Your task to perform on an android device: add a contact Image 0: 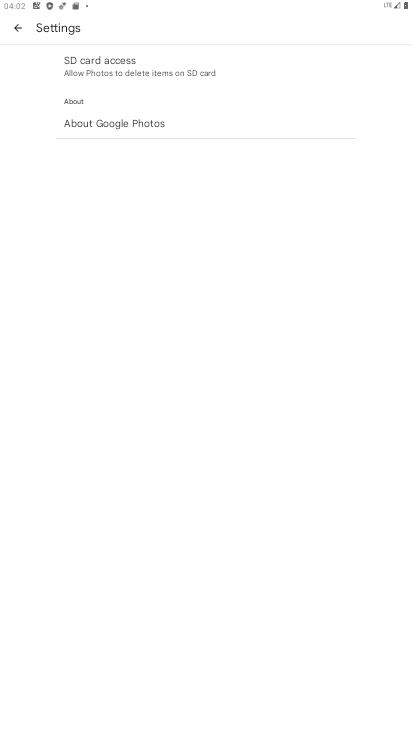
Step 0: press home button
Your task to perform on an android device: add a contact Image 1: 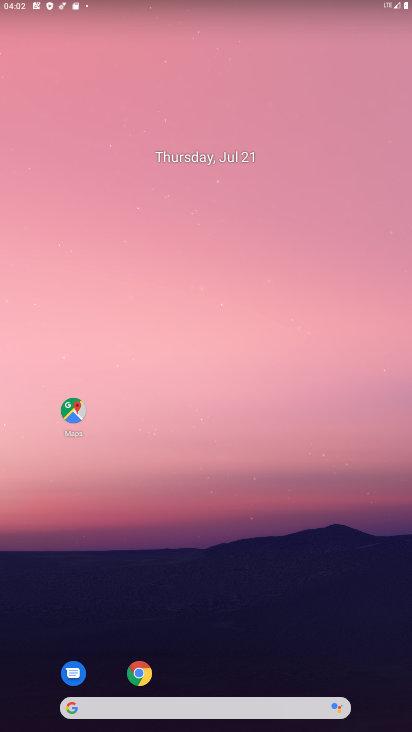
Step 1: drag from (192, 543) to (337, 158)
Your task to perform on an android device: add a contact Image 2: 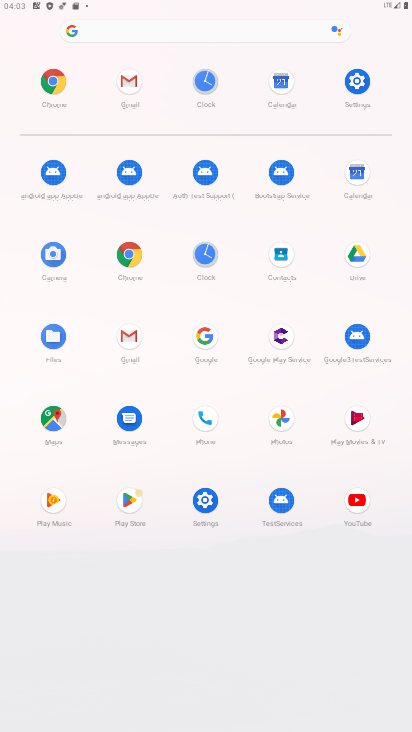
Step 2: click (289, 246)
Your task to perform on an android device: add a contact Image 3: 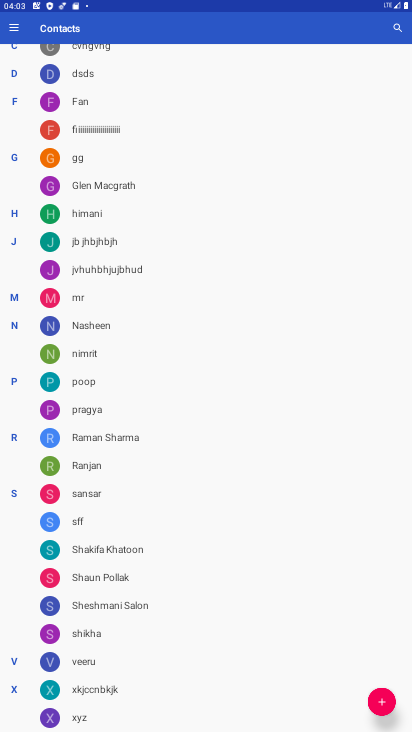
Step 3: click (374, 707)
Your task to perform on an android device: add a contact Image 4: 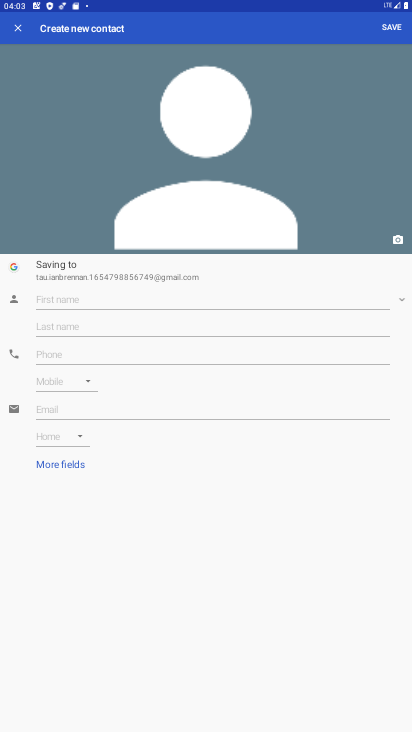
Step 4: click (134, 259)
Your task to perform on an android device: add a contact Image 5: 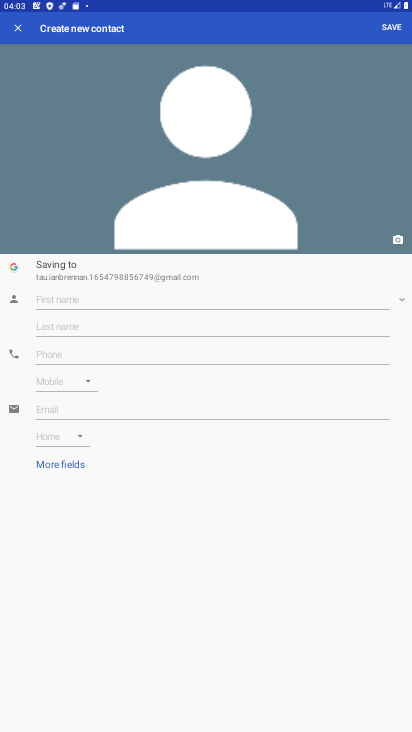
Step 5: click (134, 263)
Your task to perform on an android device: add a contact Image 6: 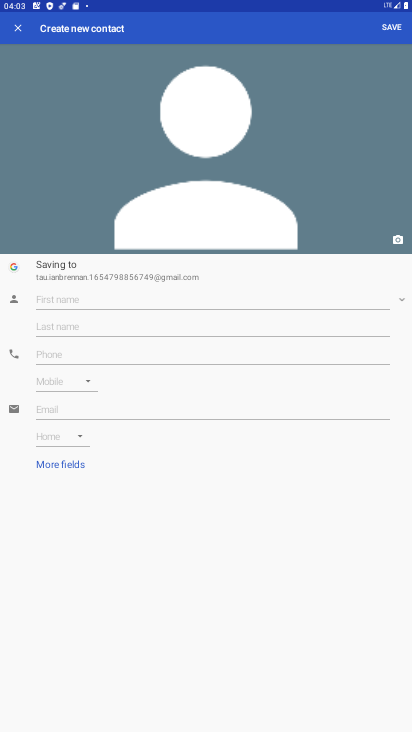
Step 6: click (332, 301)
Your task to perform on an android device: add a contact Image 7: 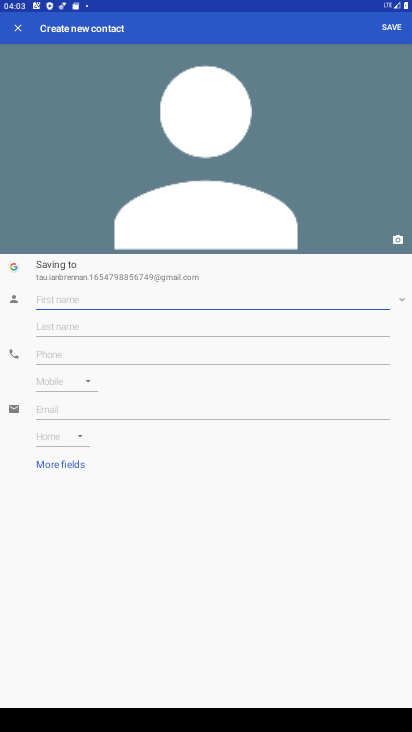
Step 7: type "nori"
Your task to perform on an android device: add a contact Image 8: 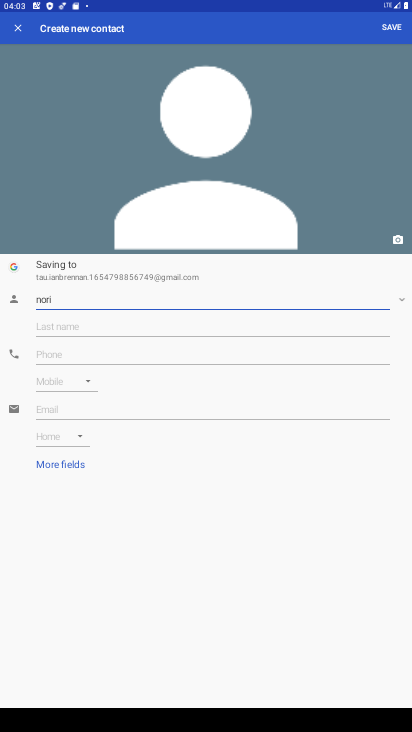
Step 8: click (402, 22)
Your task to perform on an android device: add a contact Image 9: 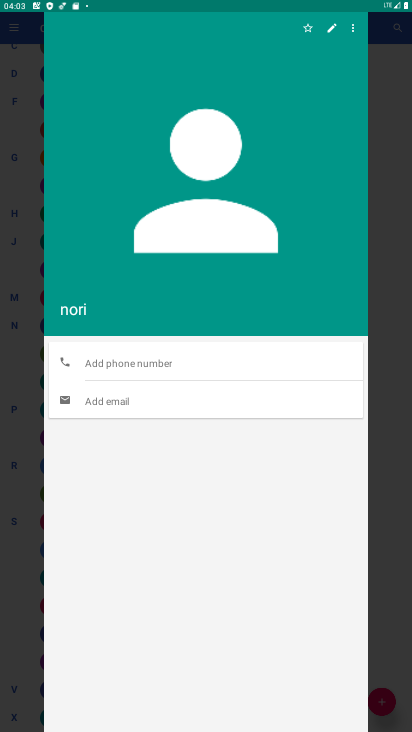
Step 9: task complete